Your task to perform on an android device: set an alarm Image 0: 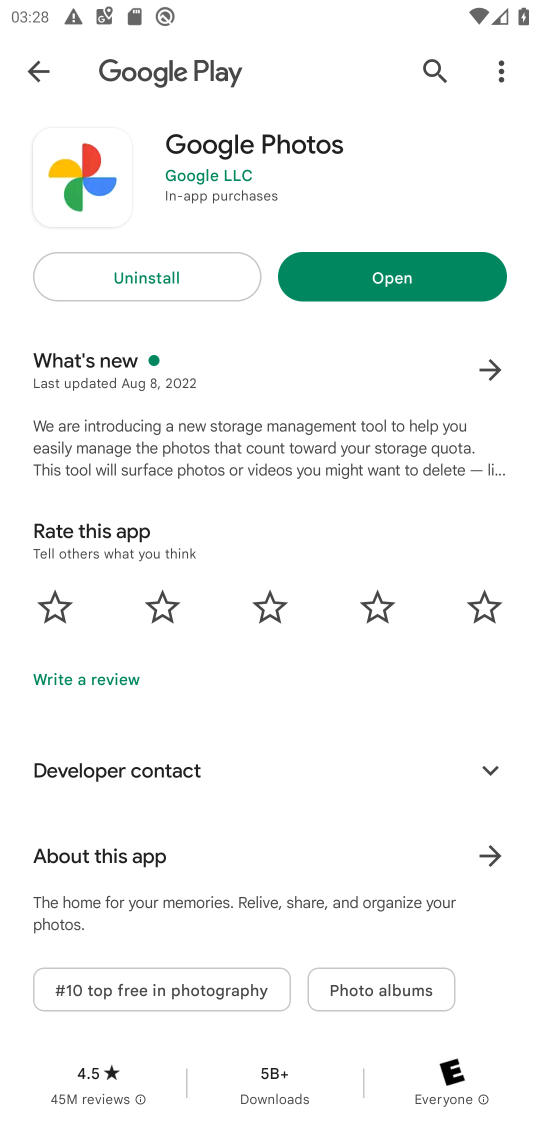
Step 0: press home button
Your task to perform on an android device: set an alarm Image 1: 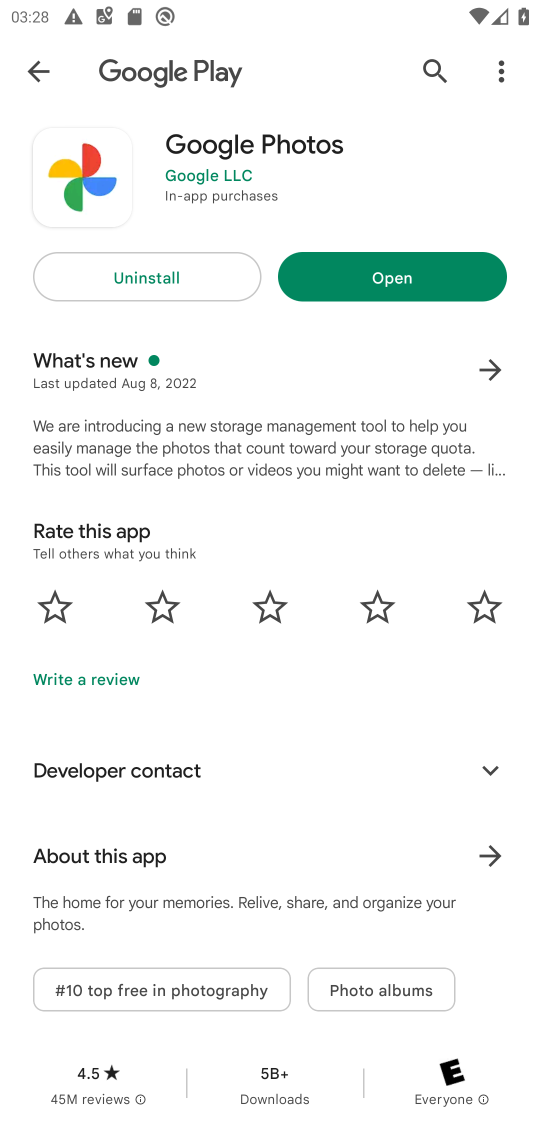
Step 1: press home button
Your task to perform on an android device: set an alarm Image 2: 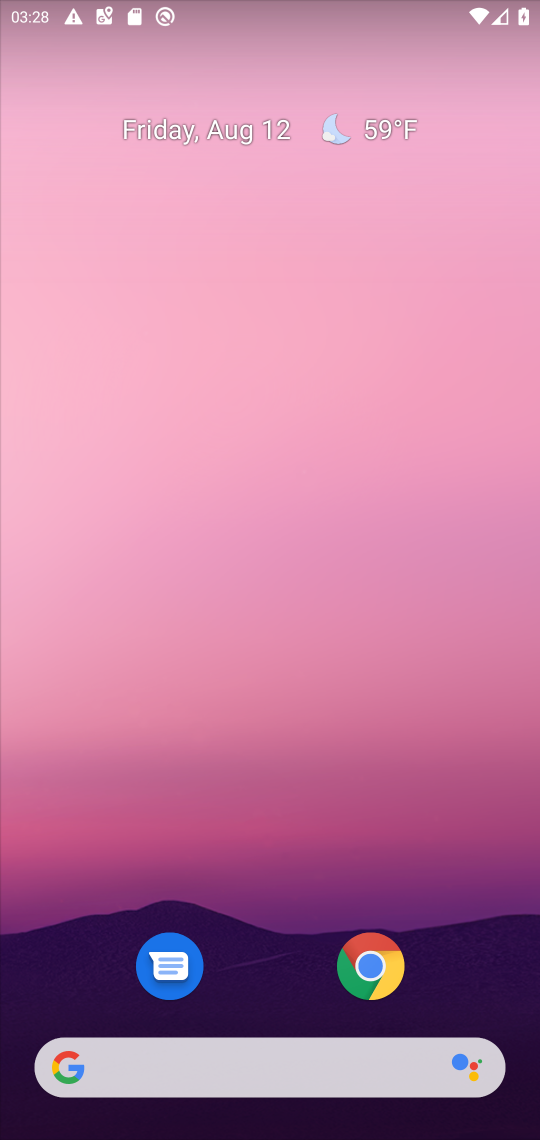
Step 2: drag from (256, 957) to (272, 123)
Your task to perform on an android device: set an alarm Image 3: 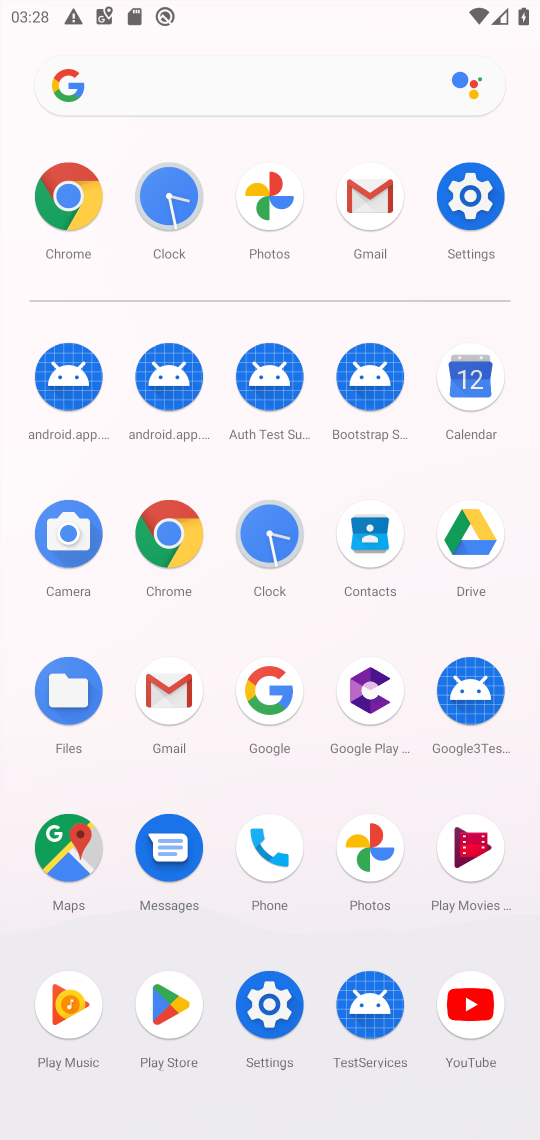
Step 3: click (165, 196)
Your task to perform on an android device: set an alarm Image 4: 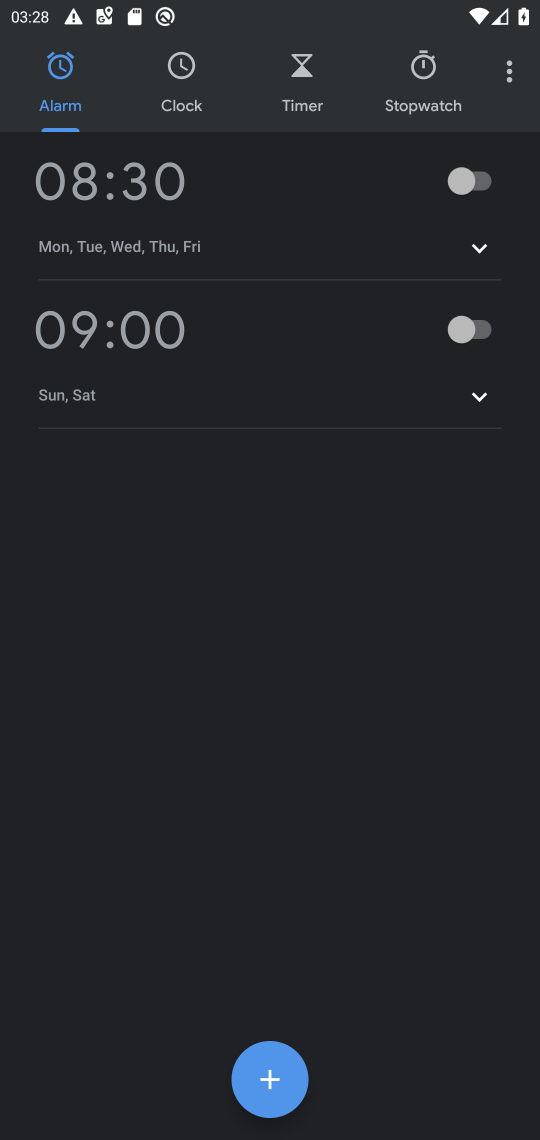
Step 4: click (282, 1076)
Your task to perform on an android device: set an alarm Image 5: 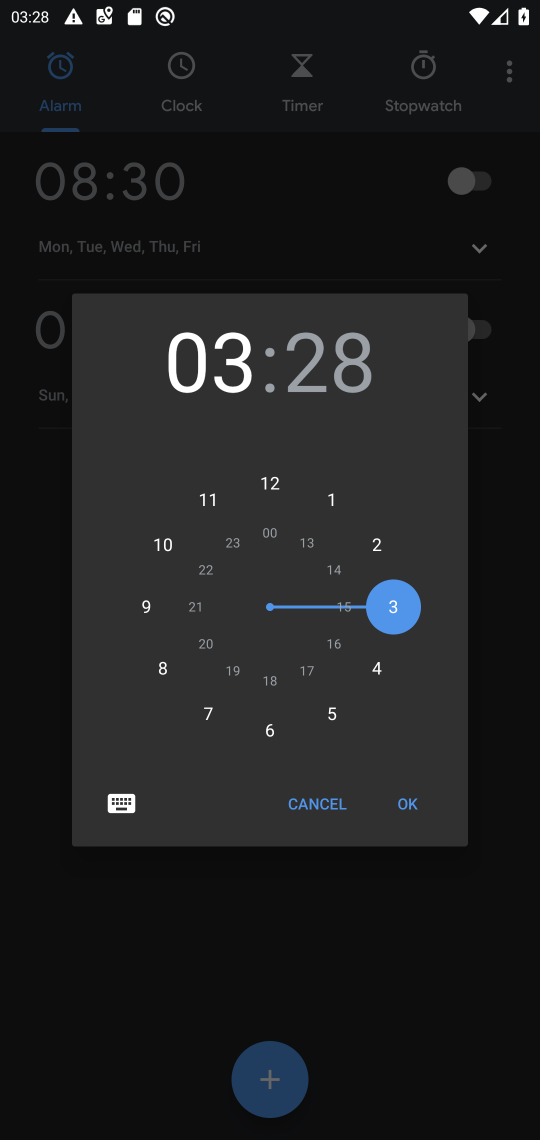
Step 5: click (415, 812)
Your task to perform on an android device: set an alarm Image 6: 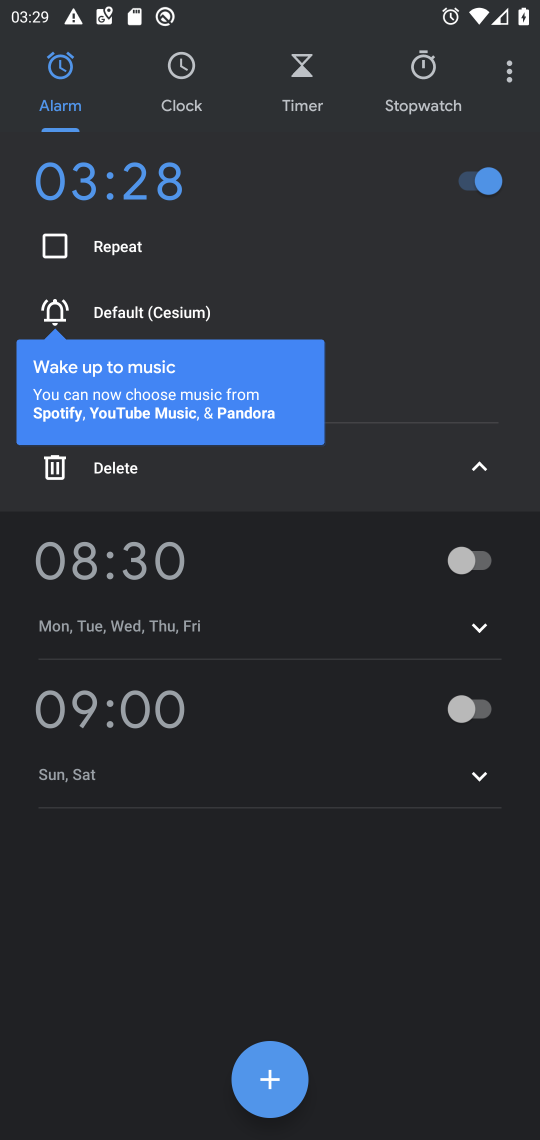
Step 6: task complete